Your task to perform on an android device: open app "Spotify" (install if not already installed), go to login, and select forgot password Image 0: 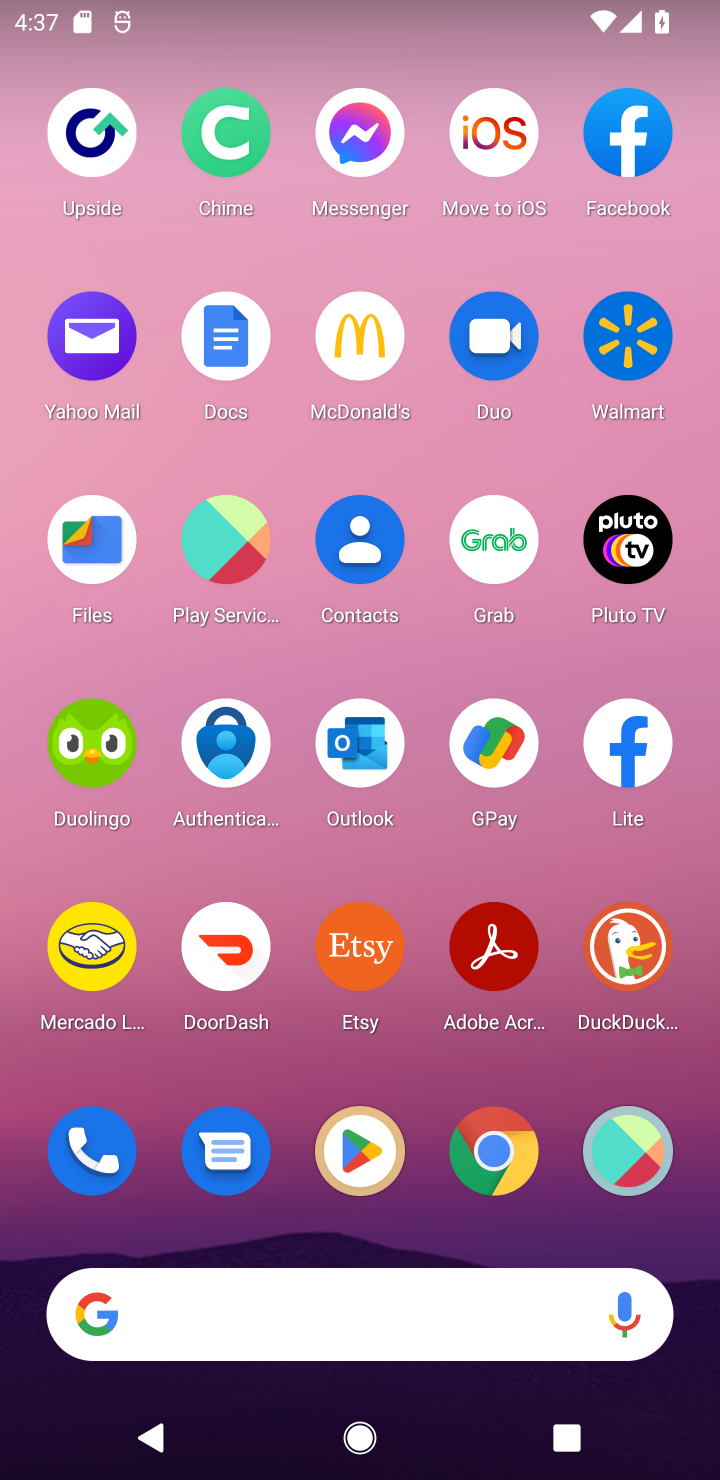
Step 0: click (377, 1123)
Your task to perform on an android device: open app "Spotify" (install if not already installed), go to login, and select forgot password Image 1: 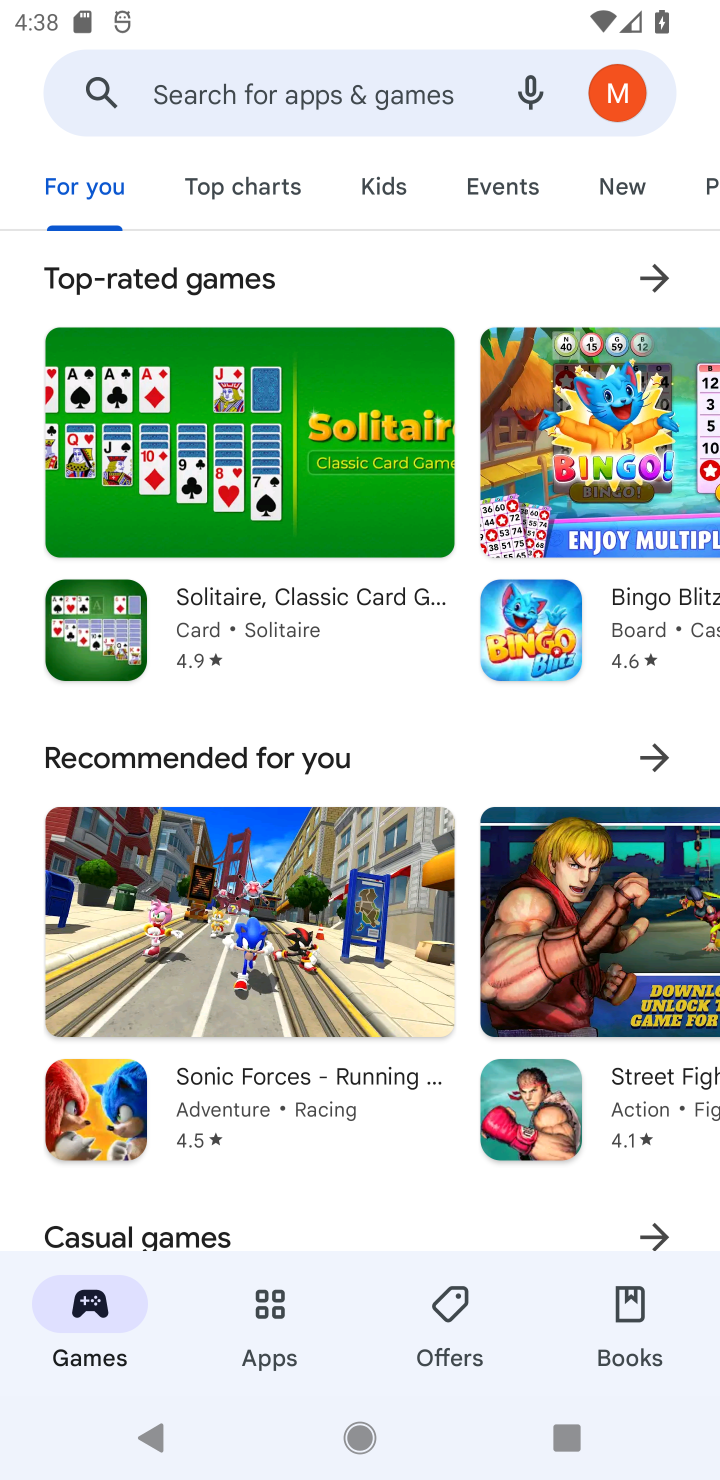
Step 1: click (315, 73)
Your task to perform on an android device: open app "Spotify" (install if not already installed), go to login, and select forgot password Image 2: 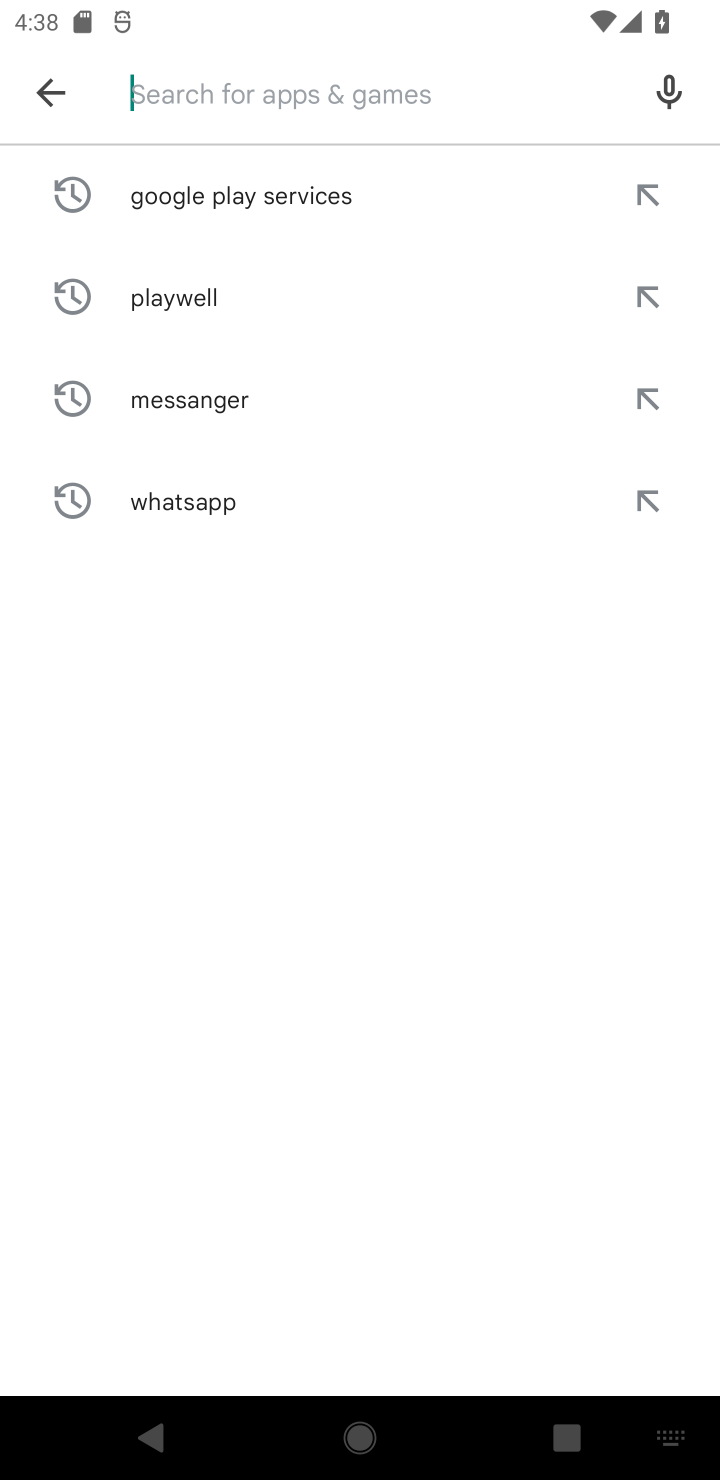
Step 2: type "spotify"
Your task to perform on an android device: open app "Spotify" (install if not already installed), go to login, and select forgot password Image 3: 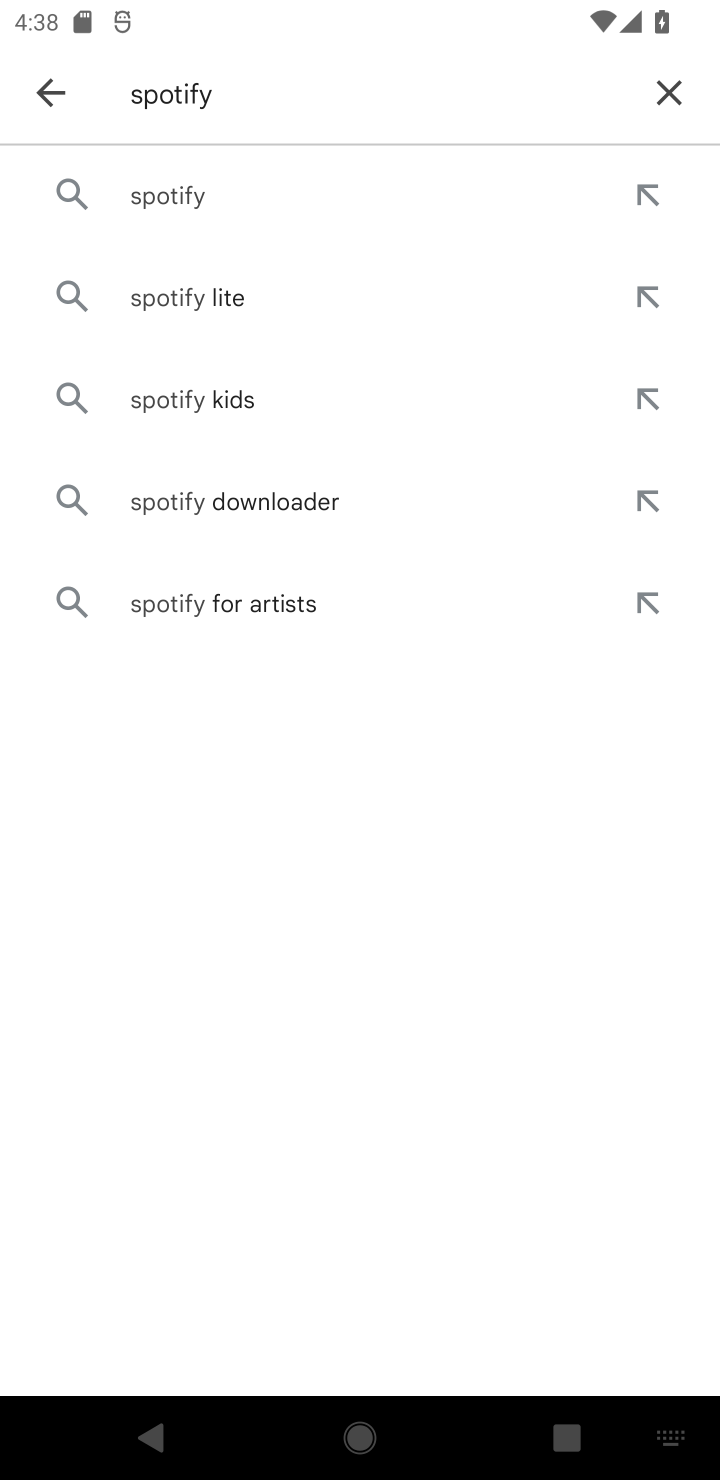
Step 3: click (253, 206)
Your task to perform on an android device: open app "Spotify" (install if not already installed), go to login, and select forgot password Image 4: 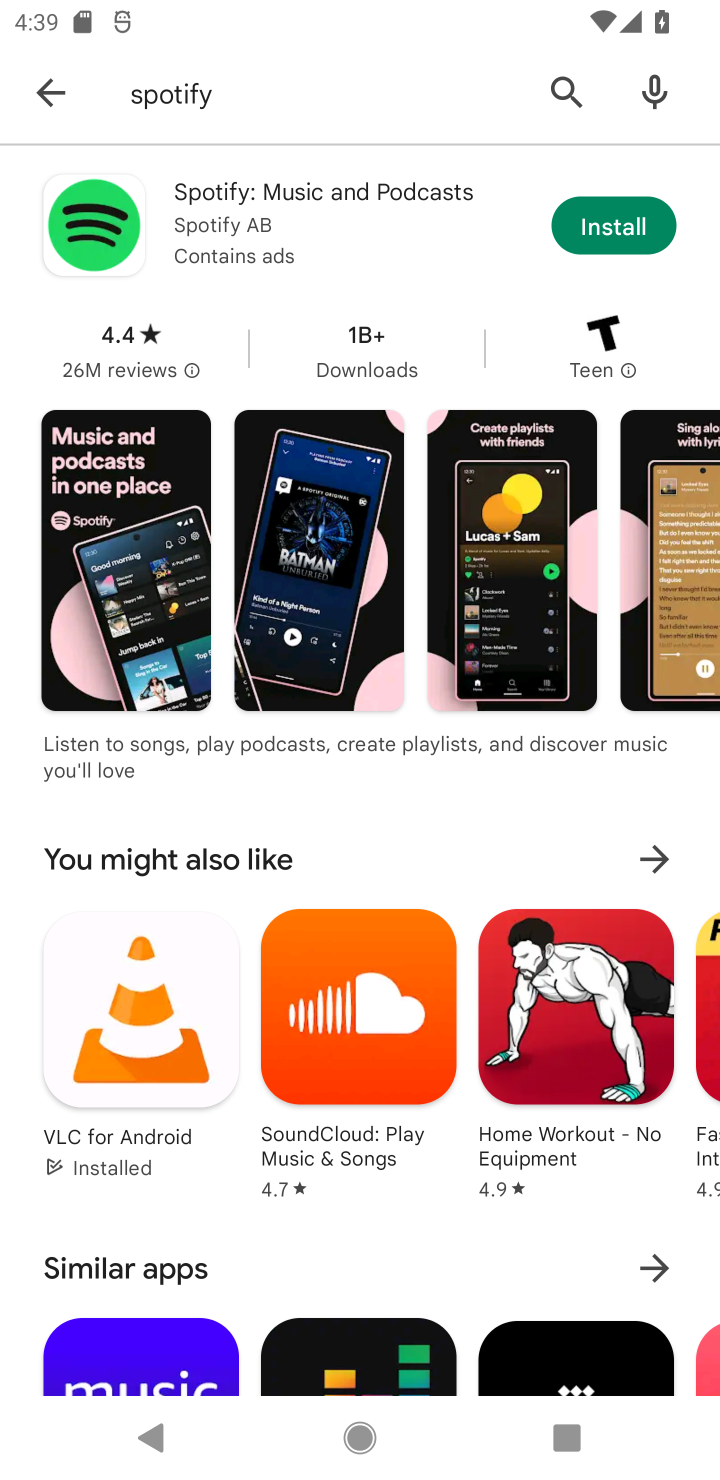
Step 4: click (594, 251)
Your task to perform on an android device: open app "Spotify" (install if not already installed), go to login, and select forgot password Image 5: 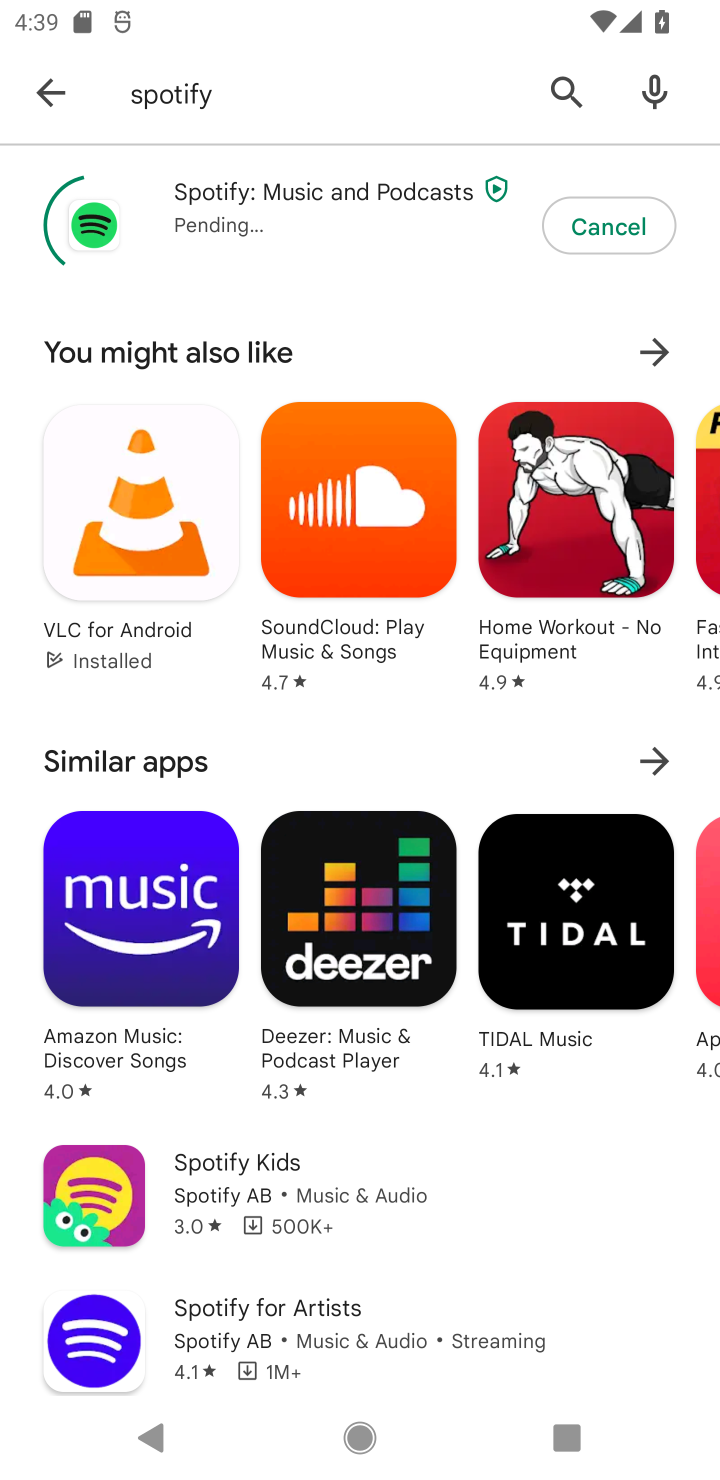
Step 5: task complete